Your task to perform on an android device: What's the weather? Image 0: 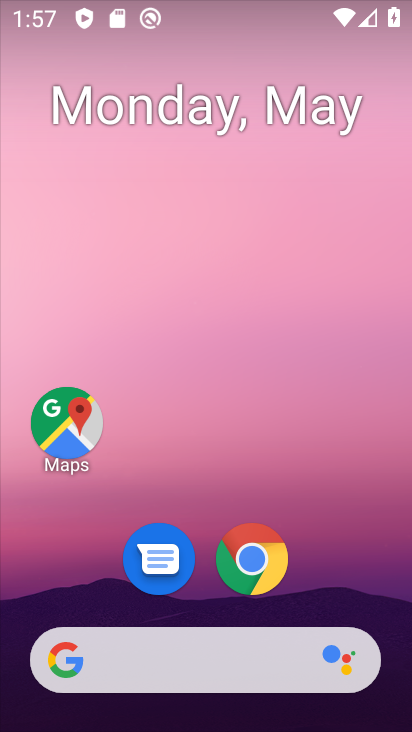
Step 0: press home button
Your task to perform on an android device: What's the weather? Image 1: 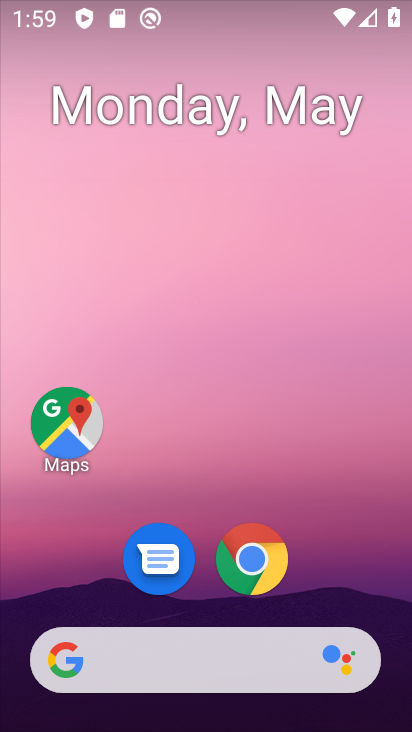
Step 1: click (214, 668)
Your task to perform on an android device: What's the weather? Image 2: 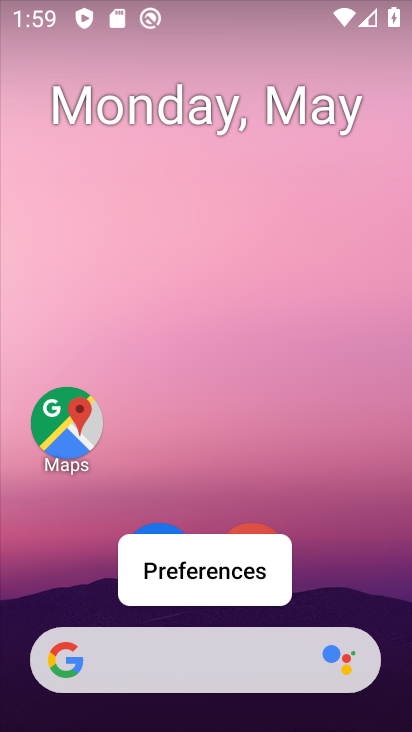
Step 2: click (170, 661)
Your task to perform on an android device: What's the weather? Image 3: 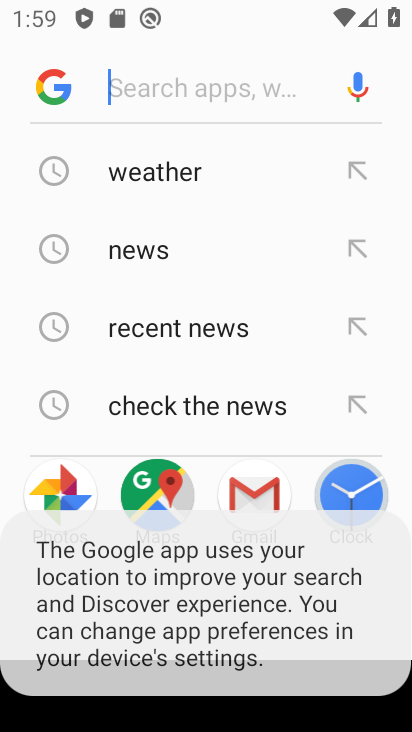
Step 3: click (189, 188)
Your task to perform on an android device: What's the weather? Image 4: 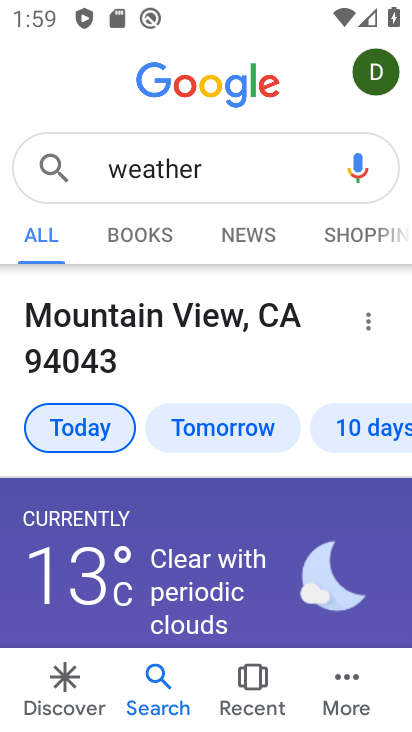
Step 4: task complete